Your task to perform on an android device: turn pop-ups off in chrome Image 0: 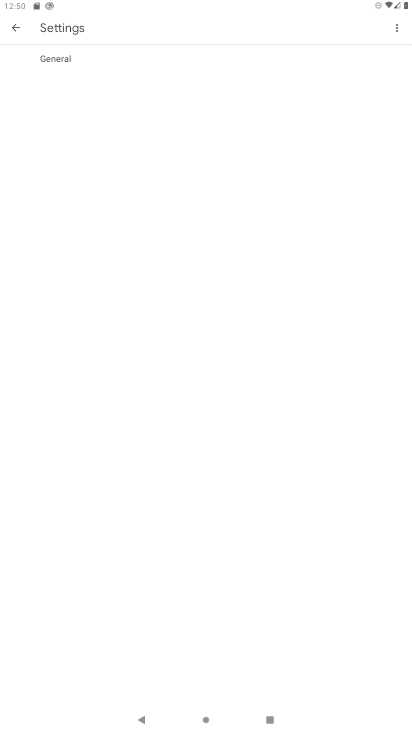
Step 0: press home button
Your task to perform on an android device: turn pop-ups off in chrome Image 1: 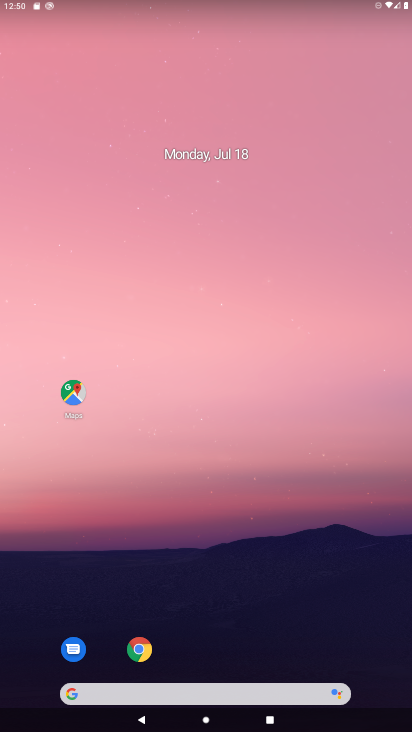
Step 1: click (143, 645)
Your task to perform on an android device: turn pop-ups off in chrome Image 2: 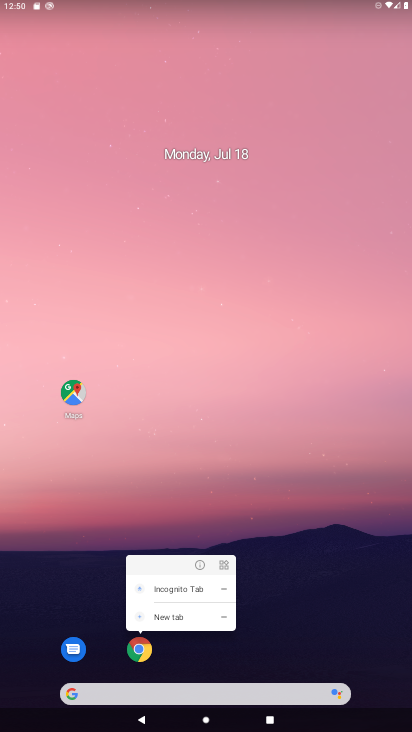
Step 2: click (144, 648)
Your task to perform on an android device: turn pop-ups off in chrome Image 3: 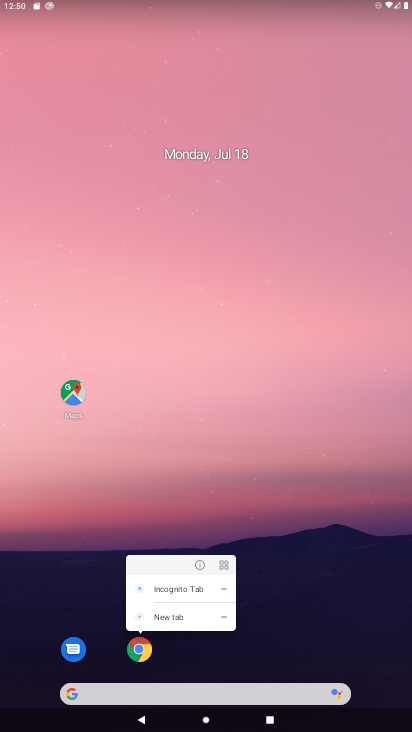
Step 3: click (144, 647)
Your task to perform on an android device: turn pop-ups off in chrome Image 4: 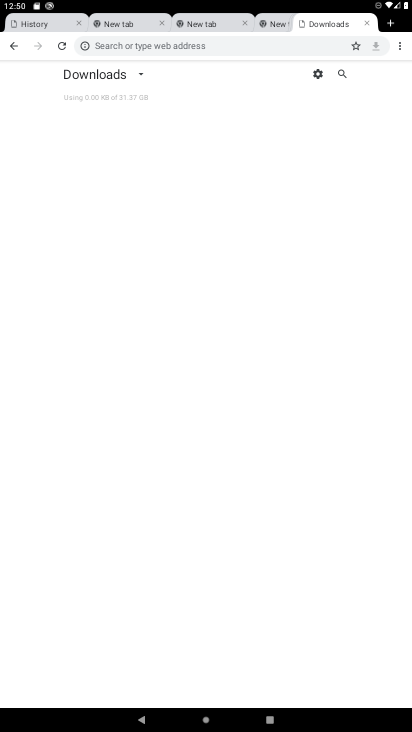
Step 4: click (402, 46)
Your task to perform on an android device: turn pop-ups off in chrome Image 5: 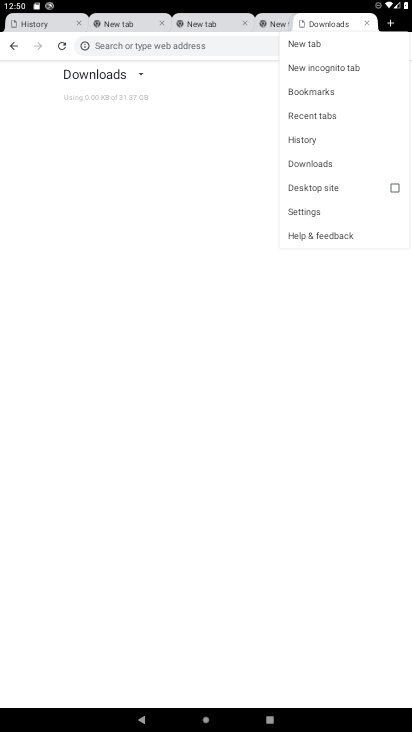
Step 5: click (311, 213)
Your task to perform on an android device: turn pop-ups off in chrome Image 6: 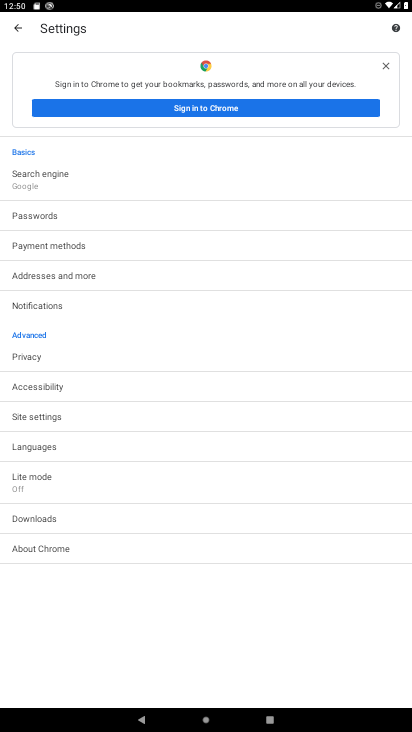
Step 6: click (43, 184)
Your task to perform on an android device: turn pop-ups off in chrome Image 7: 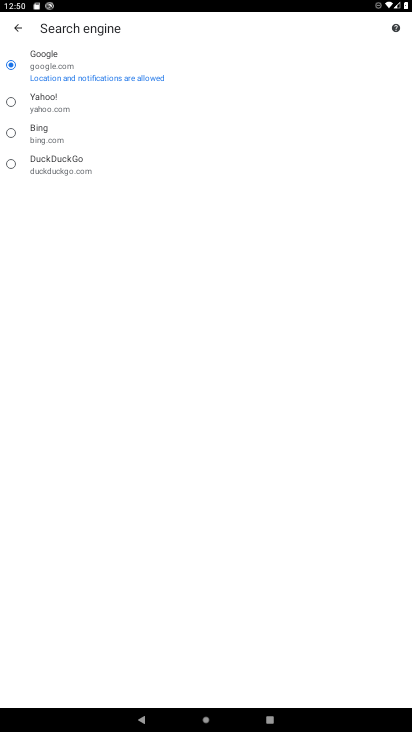
Step 7: click (13, 20)
Your task to perform on an android device: turn pop-ups off in chrome Image 8: 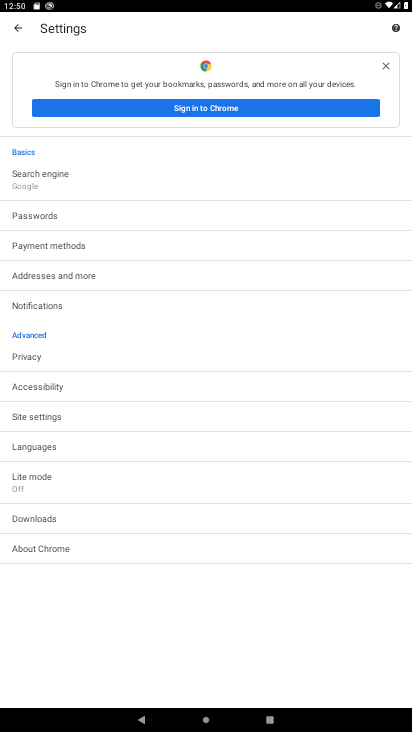
Step 8: task complete